Your task to perform on an android device: Go to Google Image 0: 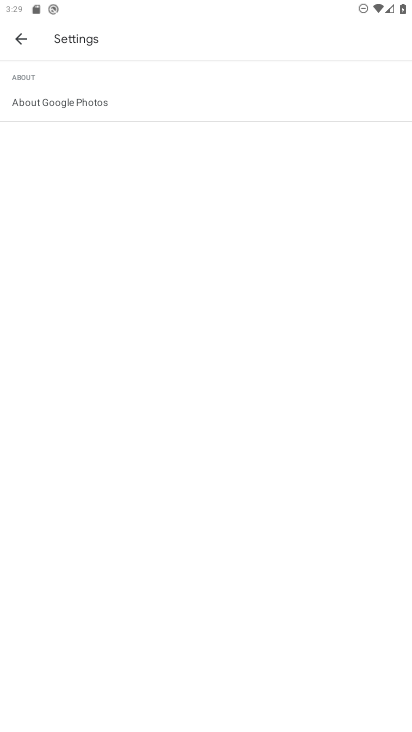
Step 0: press home button
Your task to perform on an android device: Go to Google Image 1: 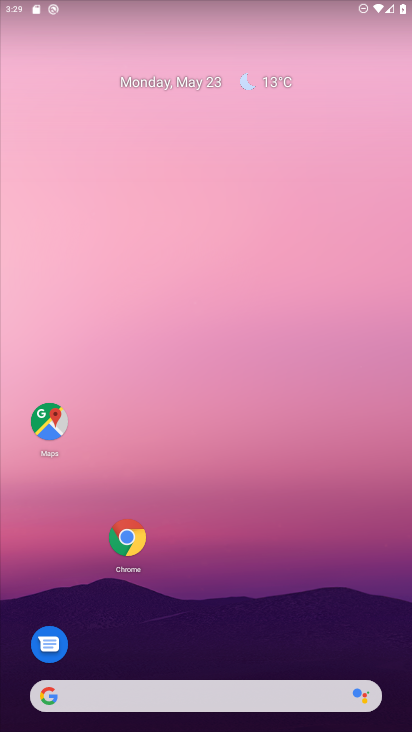
Step 1: drag from (284, 584) to (290, 38)
Your task to perform on an android device: Go to Google Image 2: 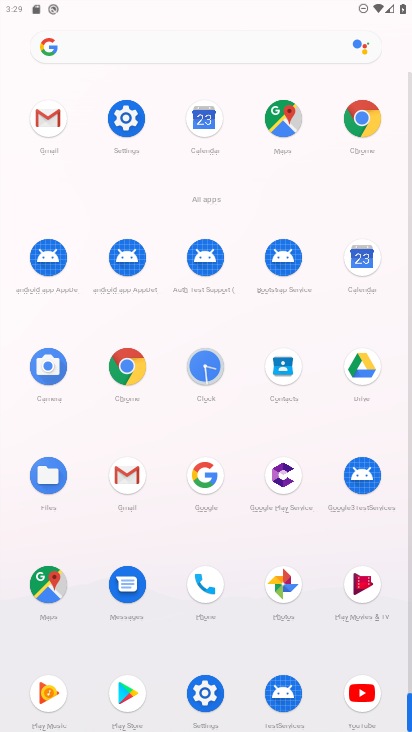
Step 2: click (205, 479)
Your task to perform on an android device: Go to Google Image 3: 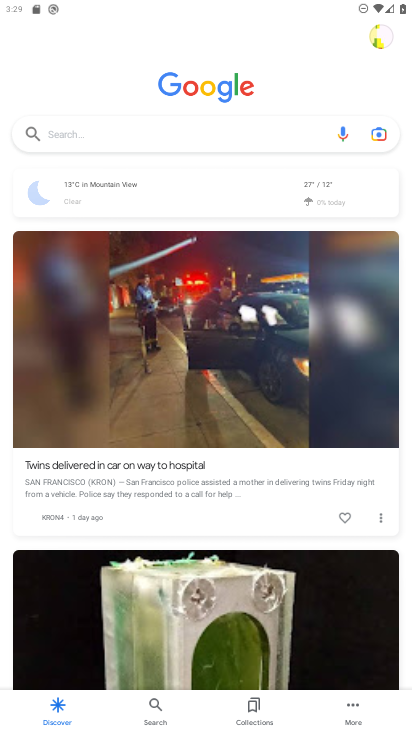
Step 3: task complete